Your task to perform on an android device: Open the map Image 0: 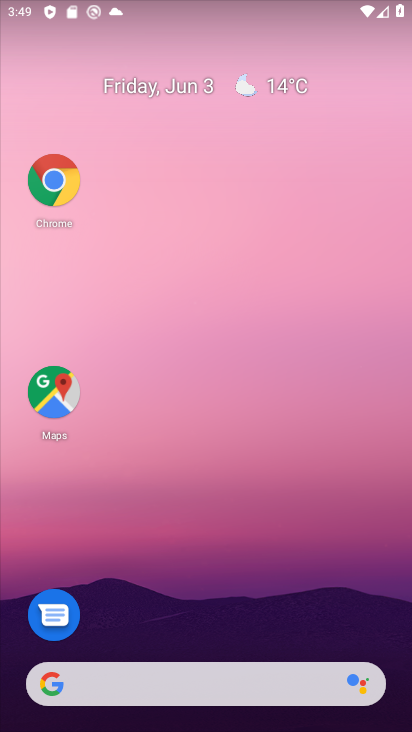
Step 0: click (54, 395)
Your task to perform on an android device: Open the map Image 1: 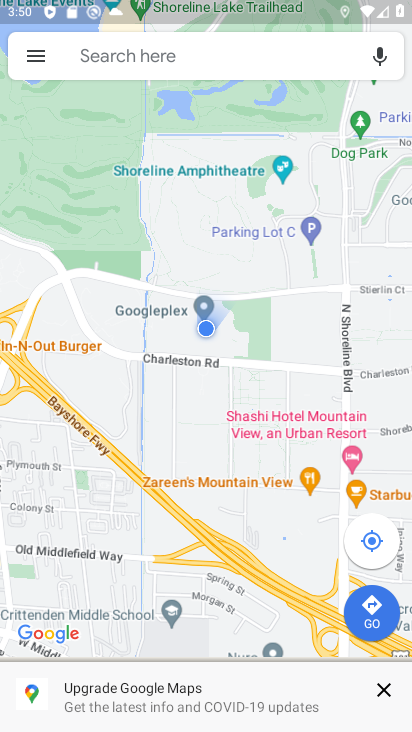
Step 1: task complete